Your task to perform on an android device: Open Google Chrome and open the bookmarks view Image 0: 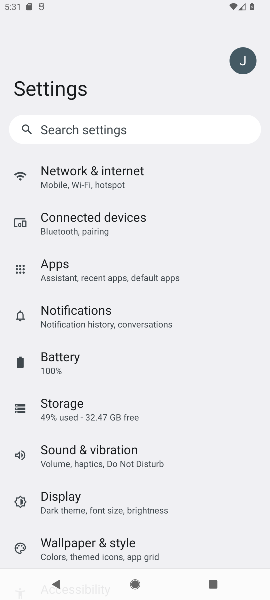
Step 0: press home button
Your task to perform on an android device: Open Google Chrome and open the bookmarks view Image 1: 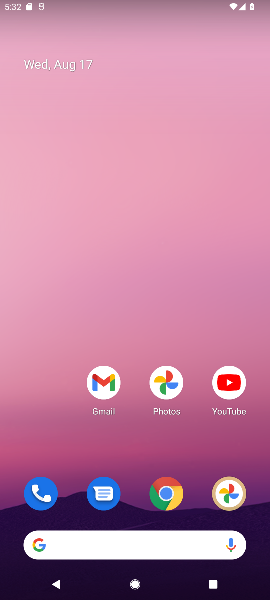
Step 1: click (165, 497)
Your task to perform on an android device: Open Google Chrome and open the bookmarks view Image 2: 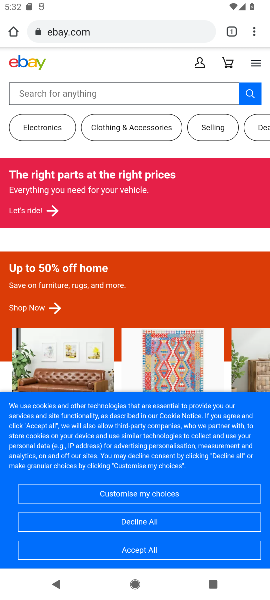
Step 2: task complete